Your task to perform on an android device: Open maps Image 0: 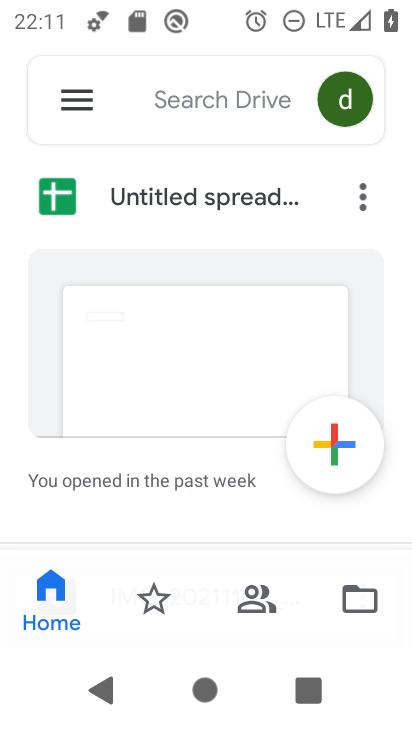
Step 0: press home button
Your task to perform on an android device: Open maps Image 1: 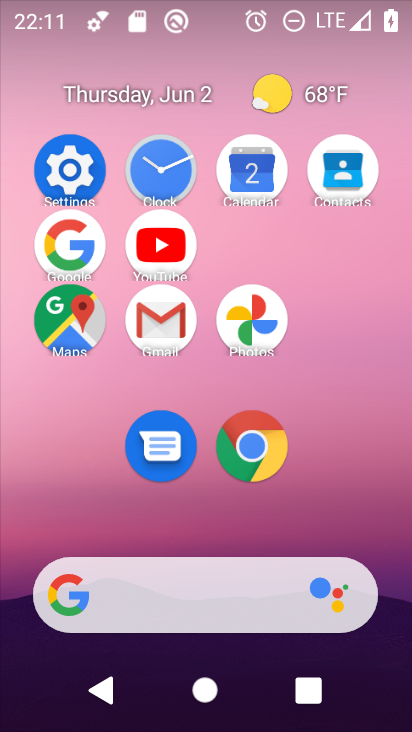
Step 1: click (92, 325)
Your task to perform on an android device: Open maps Image 2: 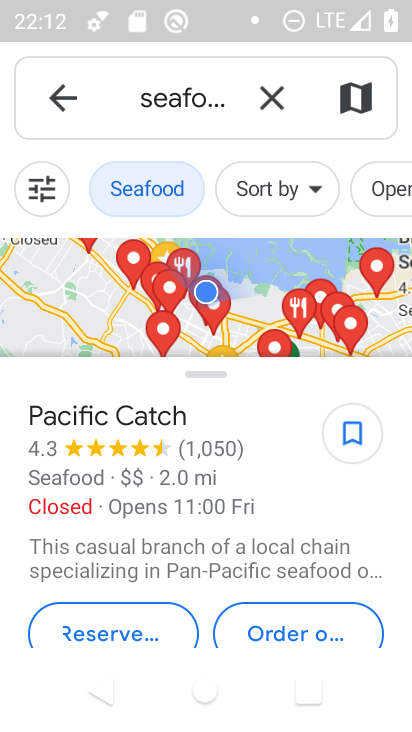
Step 2: task complete